Your task to perform on an android device: change notification settings in the gmail app Image 0: 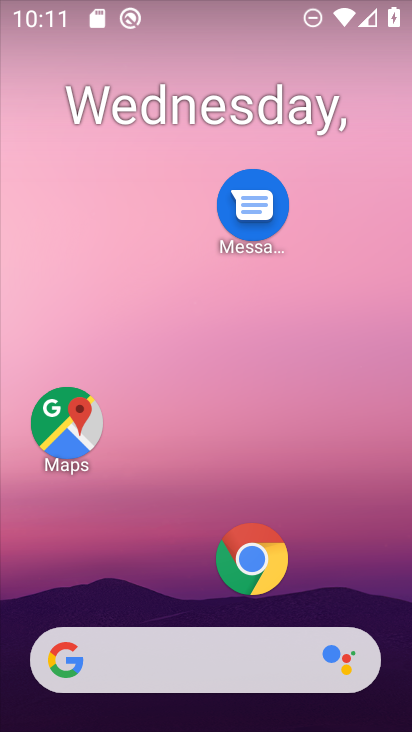
Step 0: drag from (61, 636) to (155, 135)
Your task to perform on an android device: change notification settings in the gmail app Image 1: 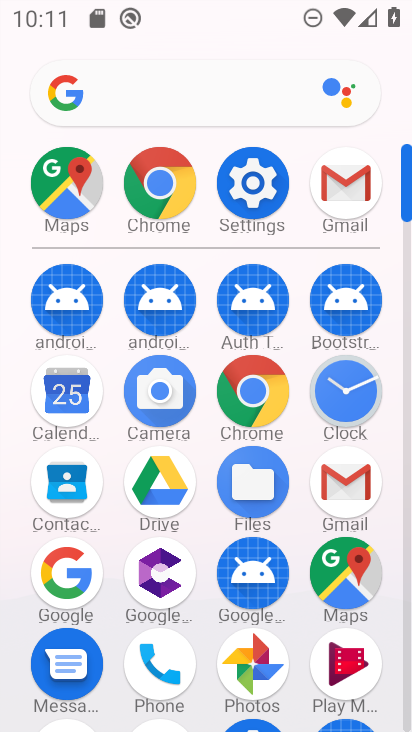
Step 1: click (346, 491)
Your task to perform on an android device: change notification settings in the gmail app Image 2: 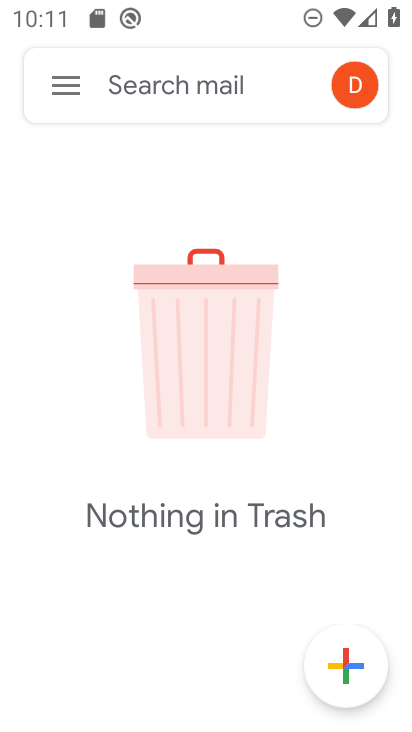
Step 2: click (53, 93)
Your task to perform on an android device: change notification settings in the gmail app Image 3: 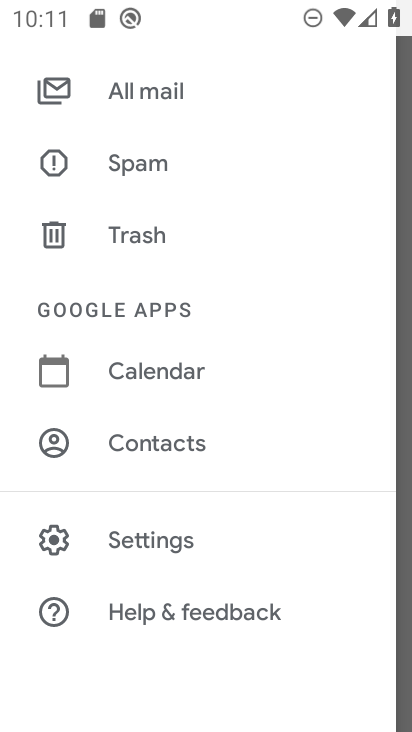
Step 3: click (129, 531)
Your task to perform on an android device: change notification settings in the gmail app Image 4: 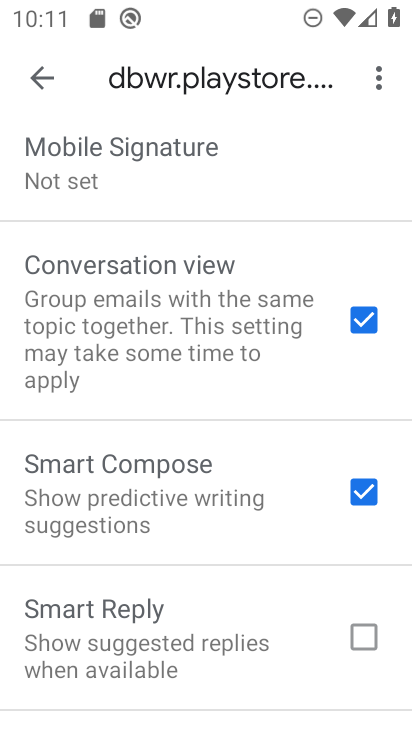
Step 4: click (49, 77)
Your task to perform on an android device: change notification settings in the gmail app Image 5: 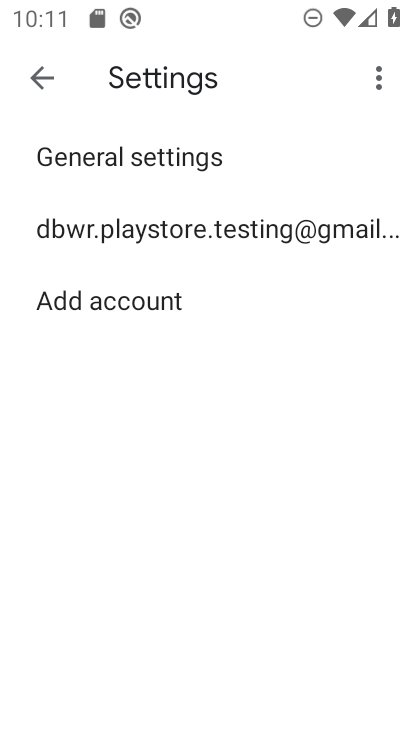
Step 5: click (119, 155)
Your task to perform on an android device: change notification settings in the gmail app Image 6: 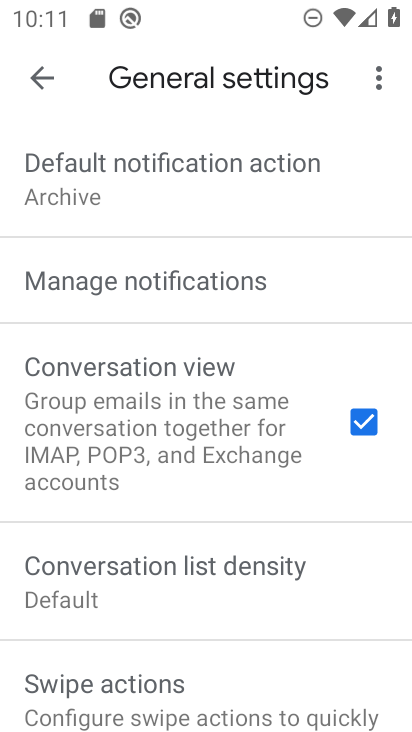
Step 6: click (183, 277)
Your task to perform on an android device: change notification settings in the gmail app Image 7: 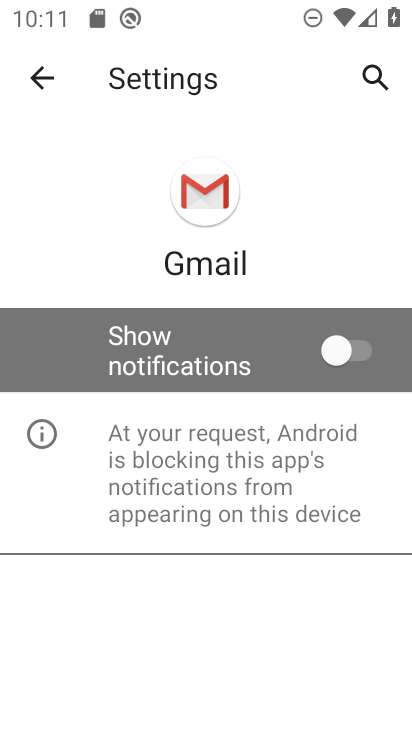
Step 7: click (245, 341)
Your task to perform on an android device: change notification settings in the gmail app Image 8: 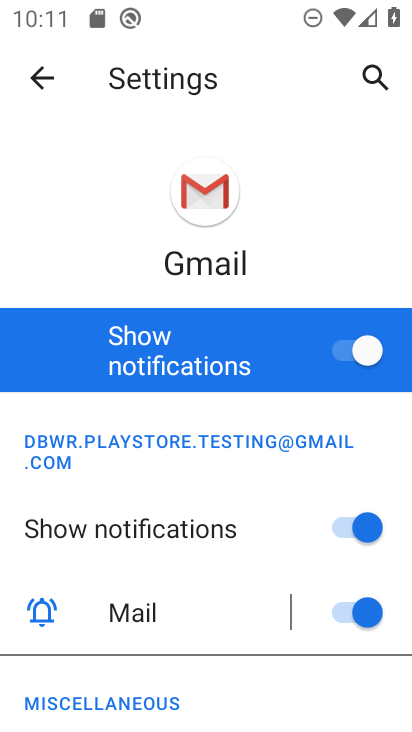
Step 8: task complete